Your task to perform on an android device: open the mobile data screen to see how much data has been used Image 0: 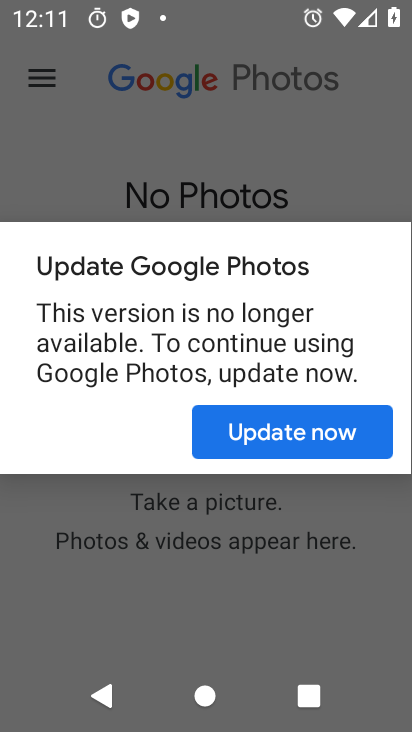
Step 0: press back button
Your task to perform on an android device: open the mobile data screen to see how much data has been used Image 1: 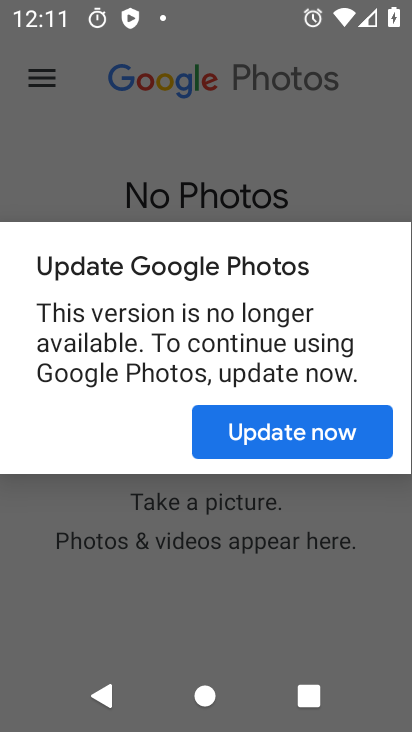
Step 1: press home button
Your task to perform on an android device: open the mobile data screen to see how much data has been used Image 2: 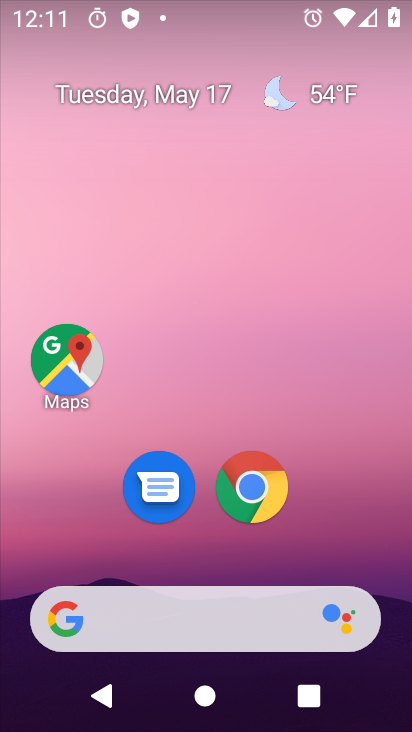
Step 2: drag from (178, 538) to (258, 24)
Your task to perform on an android device: open the mobile data screen to see how much data has been used Image 3: 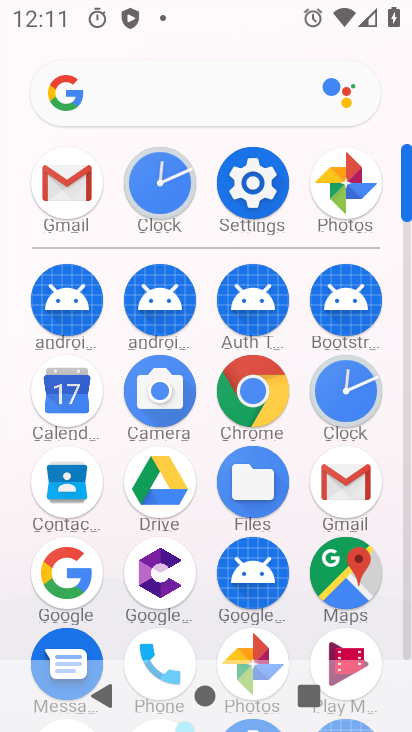
Step 3: click (244, 203)
Your task to perform on an android device: open the mobile data screen to see how much data has been used Image 4: 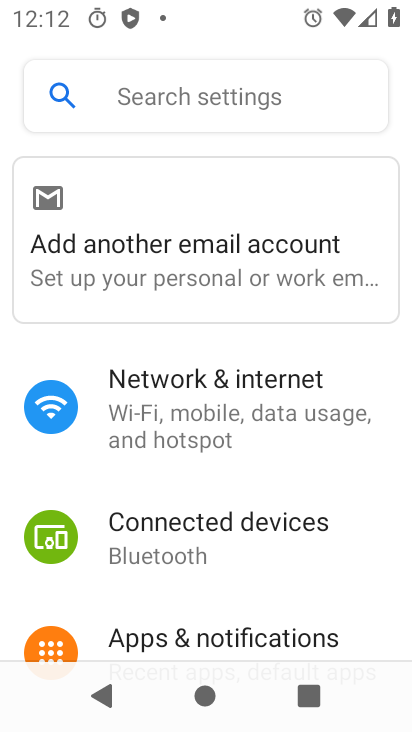
Step 4: click (221, 432)
Your task to perform on an android device: open the mobile data screen to see how much data has been used Image 5: 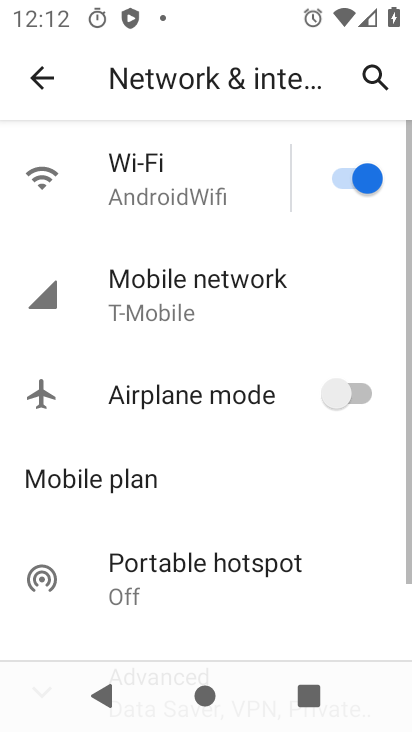
Step 5: click (177, 300)
Your task to perform on an android device: open the mobile data screen to see how much data has been used Image 6: 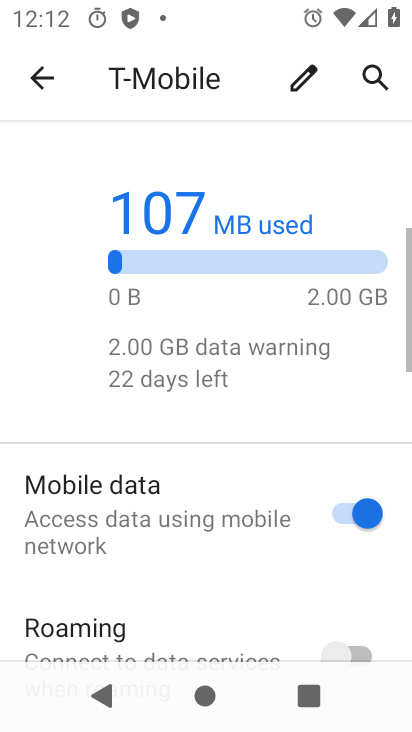
Step 6: drag from (147, 599) to (181, 135)
Your task to perform on an android device: open the mobile data screen to see how much data has been used Image 7: 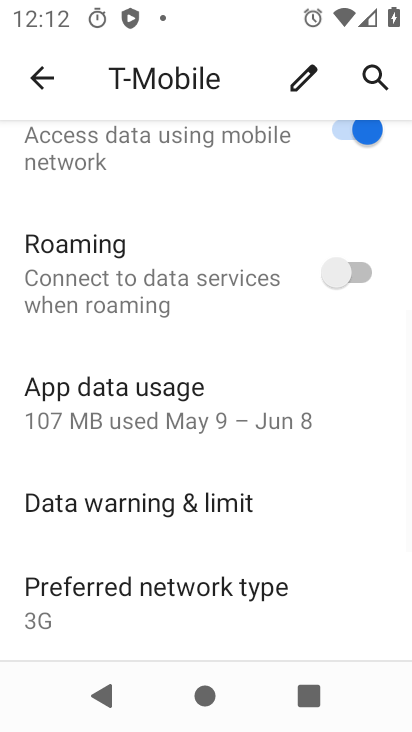
Step 7: click (114, 417)
Your task to perform on an android device: open the mobile data screen to see how much data has been used Image 8: 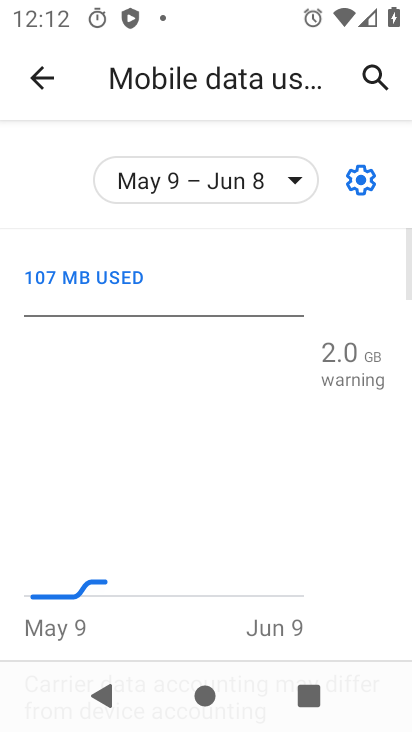
Step 8: task complete